Your task to perform on an android device: What's the weather today? Image 0: 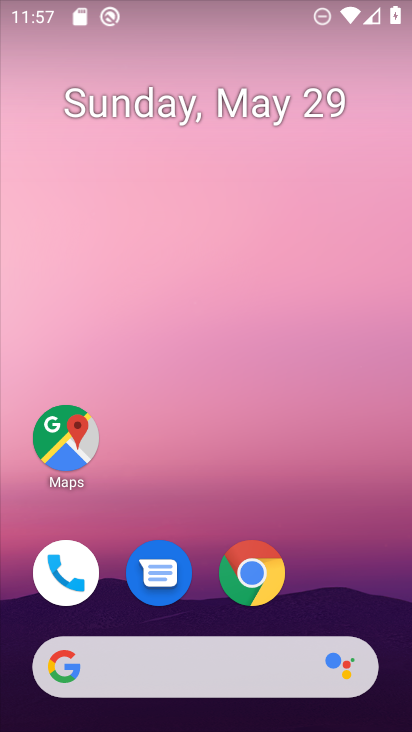
Step 0: click (280, 670)
Your task to perform on an android device: What's the weather today? Image 1: 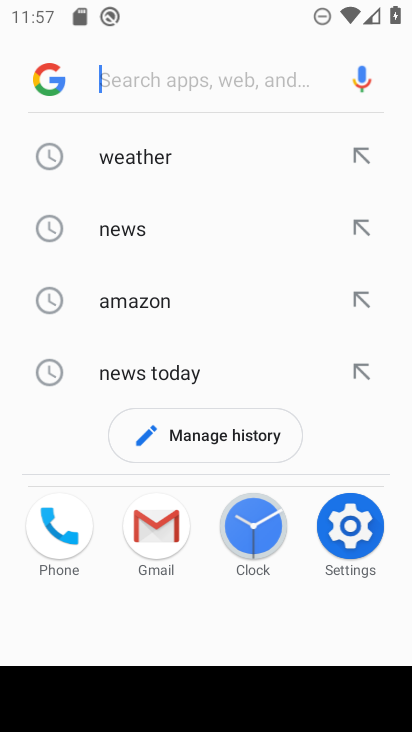
Step 1: type "weather today?"
Your task to perform on an android device: What's the weather today? Image 2: 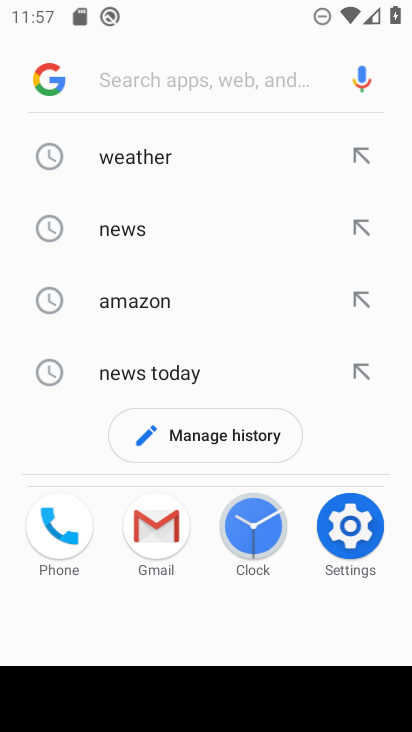
Step 2: click (255, 74)
Your task to perform on an android device: What's the weather today? Image 3: 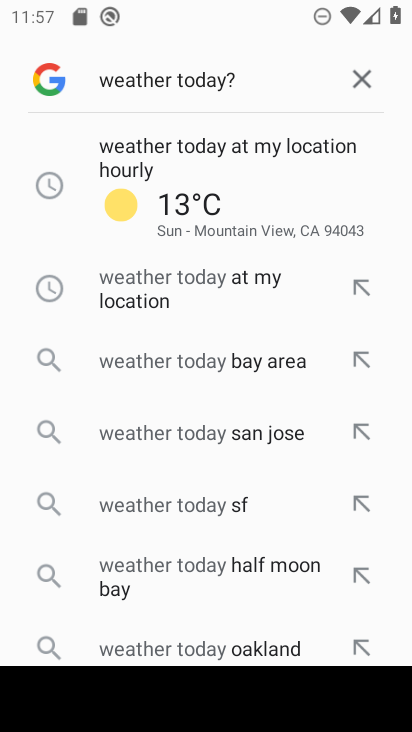
Step 3: click (236, 70)
Your task to perform on an android device: What's the weather today? Image 4: 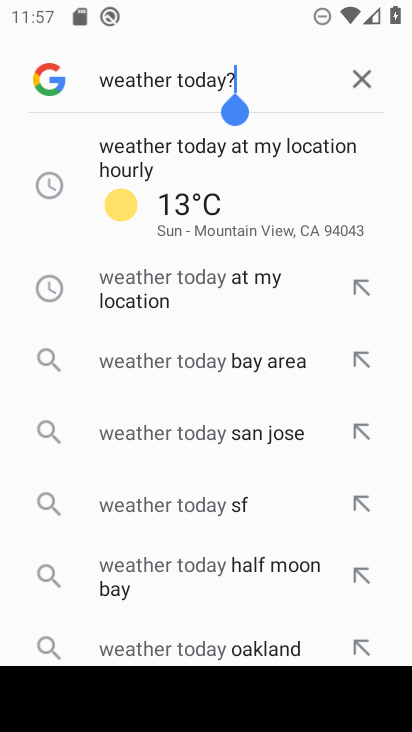
Step 4: click (52, 358)
Your task to perform on an android device: What's the weather today? Image 5: 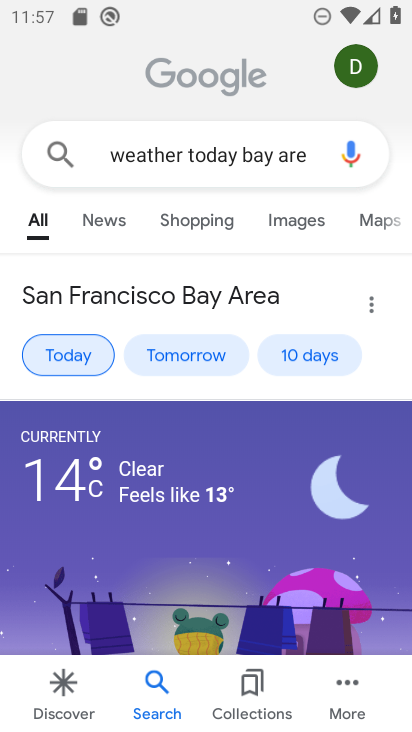
Step 5: task complete